Your task to perform on an android device: add a label to a message in the gmail app Image 0: 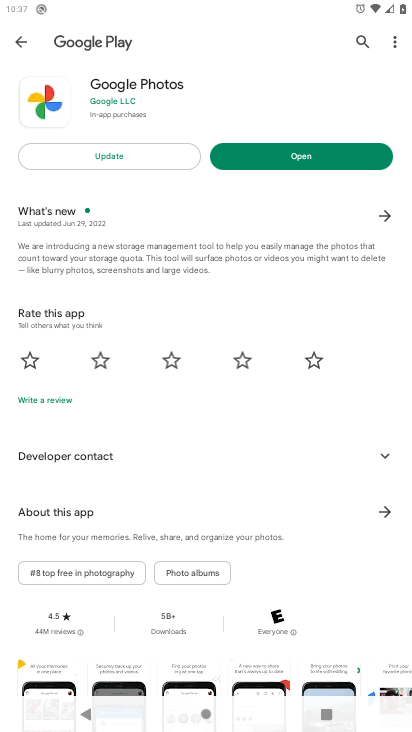
Step 0: press home button
Your task to perform on an android device: add a label to a message in the gmail app Image 1: 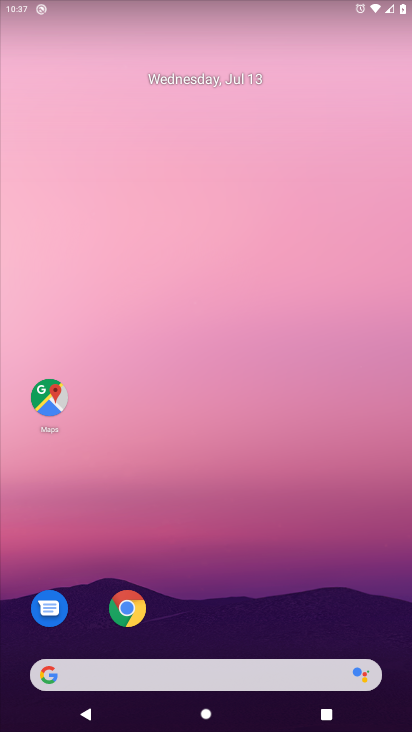
Step 1: drag from (34, 707) to (308, 99)
Your task to perform on an android device: add a label to a message in the gmail app Image 2: 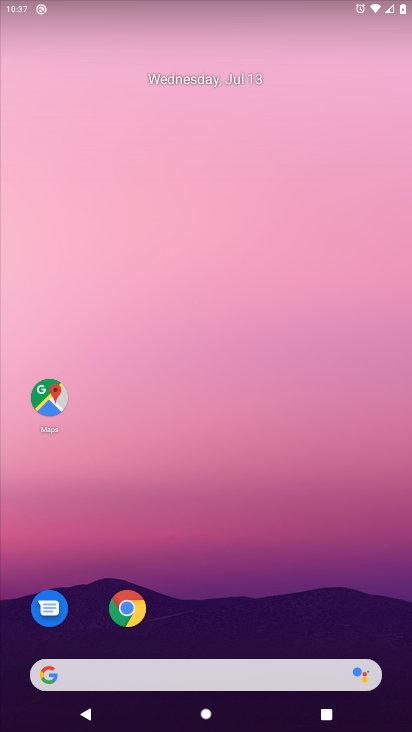
Step 2: drag from (42, 686) to (225, 7)
Your task to perform on an android device: add a label to a message in the gmail app Image 3: 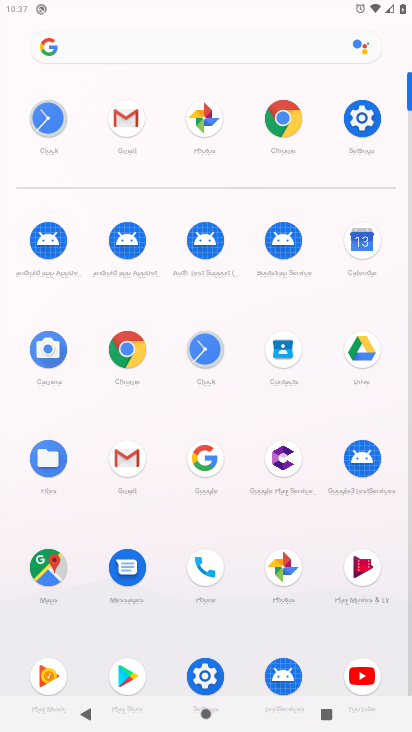
Step 3: click (133, 460)
Your task to perform on an android device: add a label to a message in the gmail app Image 4: 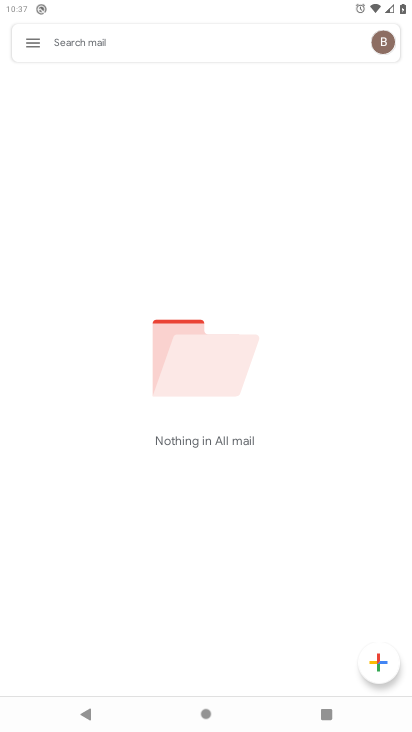
Step 4: click (23, 44)
Your task to perform on an android device: add a label to a message in the gmail app Image 5: 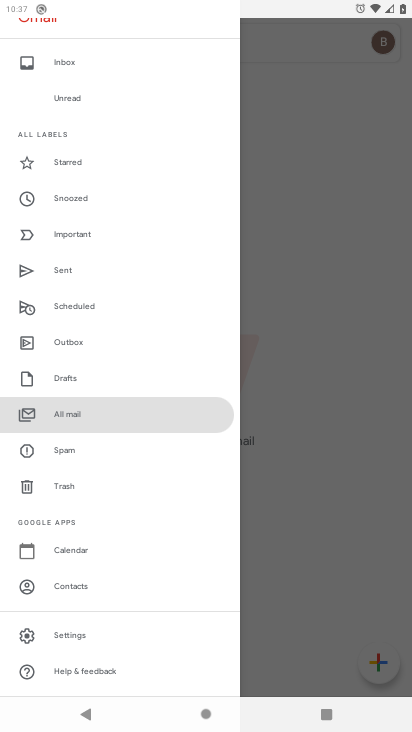
Step 5: task complete